Your task to perform on an android device: Is it going to rain this weekend? Image 0: 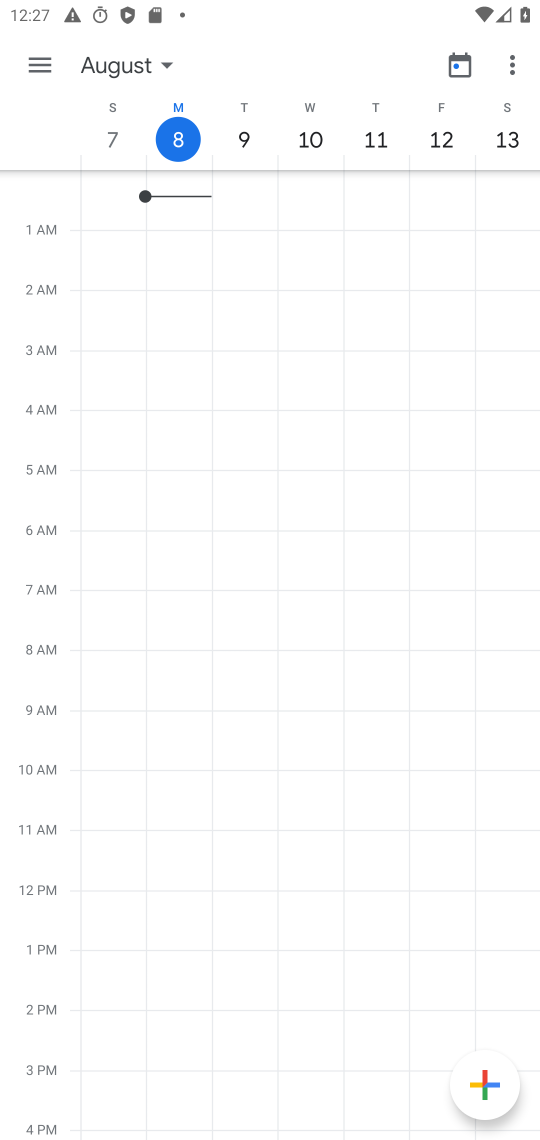
Step 0: press home button
Your task to perform on an android device: Is it going to rain this weekend? Image 1: 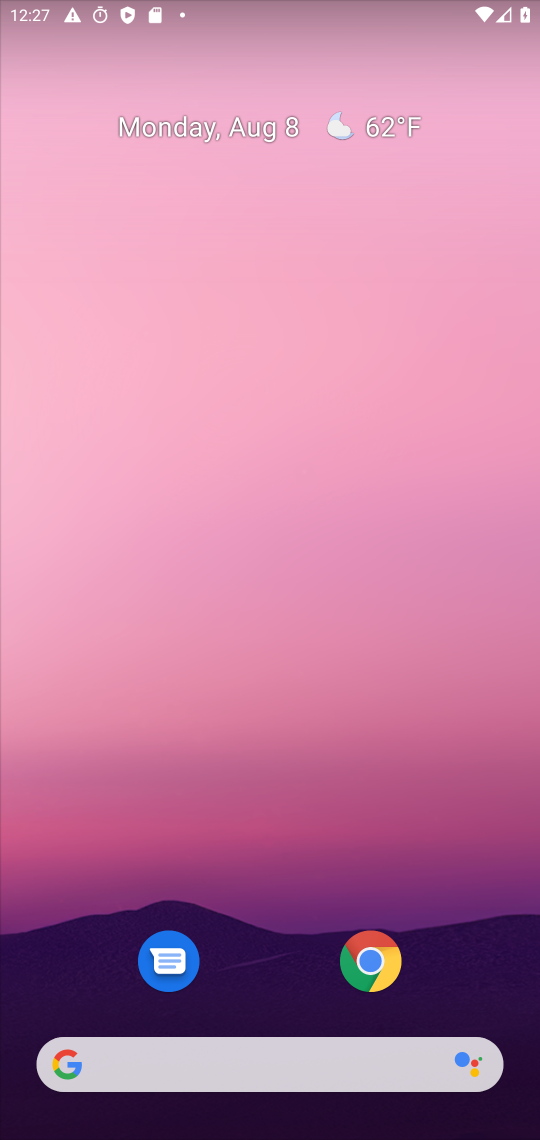
Step 1: drag from (295, 1069) to (328, 28)
Your task to perform on an android device: Is it going to rain this weekend? Image 2: 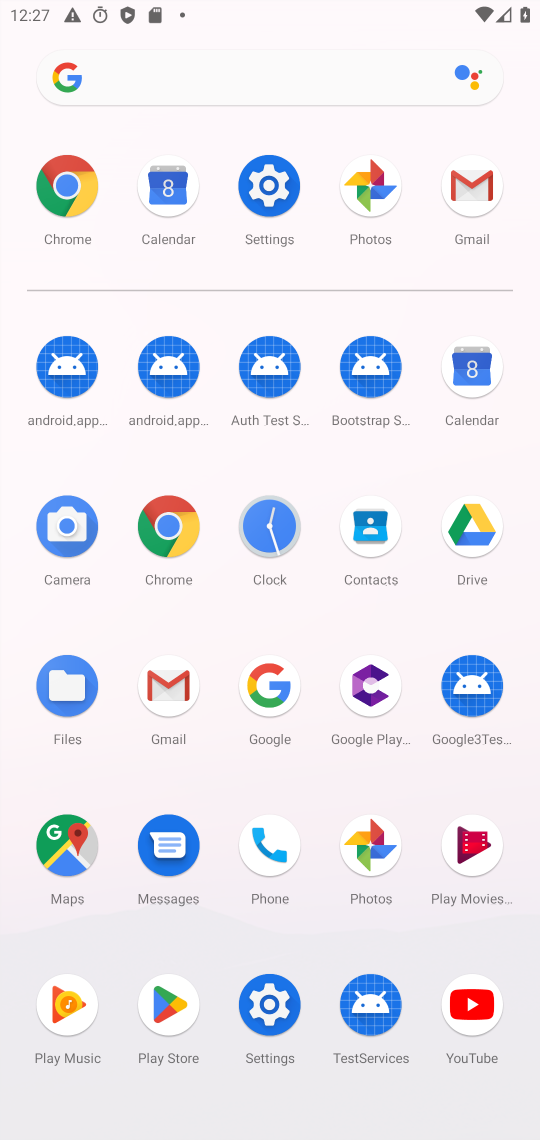
Step 2: click (265, 696)
Your task to perform on an android device: Is it going to rain this weekend? Image 3: 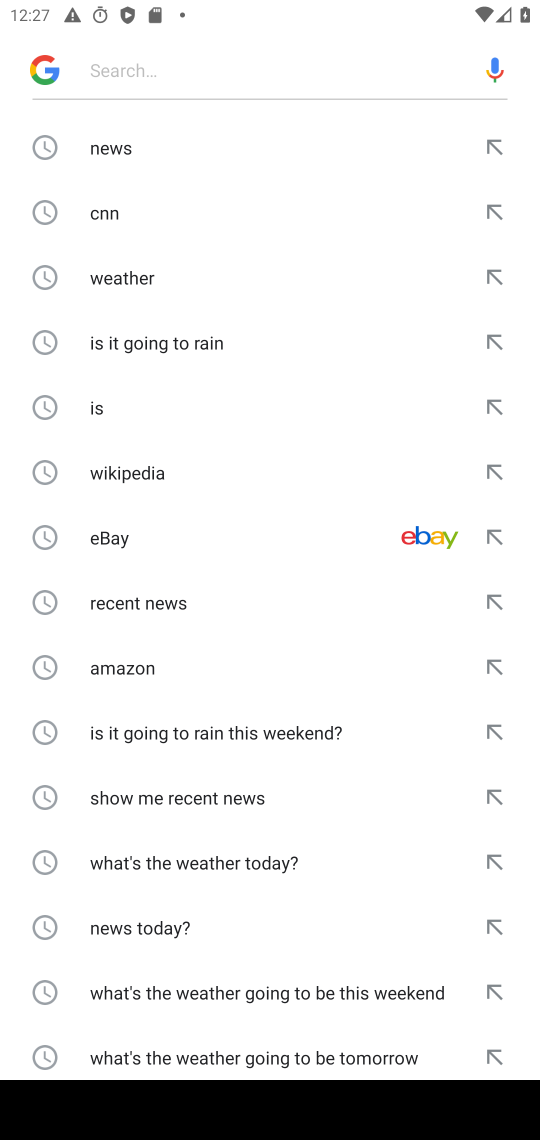
Step 3: click (285, 723)
Your task to perform on an android device: Is it going to rain this weekend? Image 4: 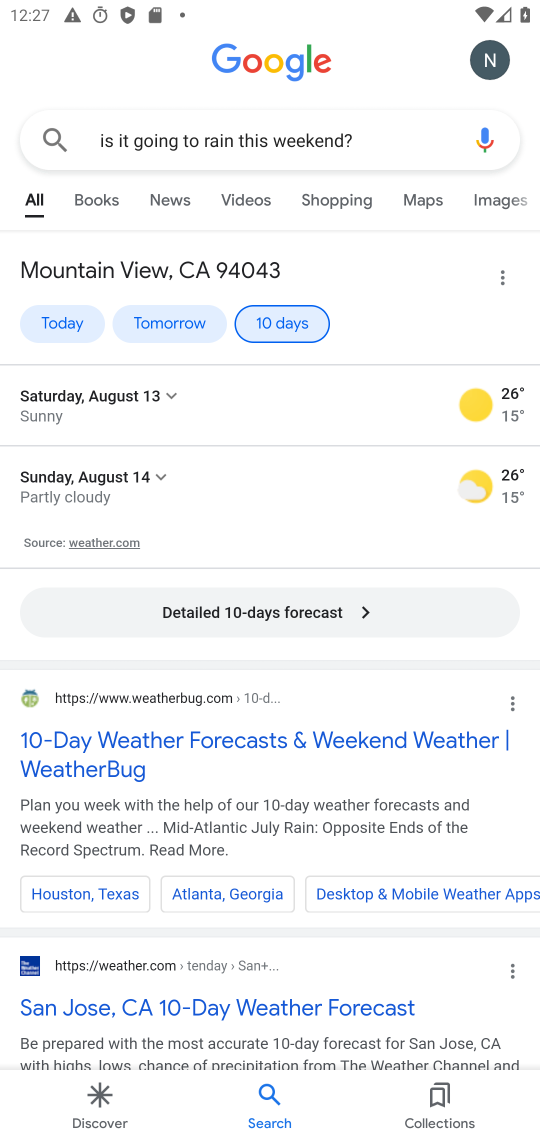
Step 4: task complete